Your task to perform on an android device: toggle translation in the chrome app Image 0: 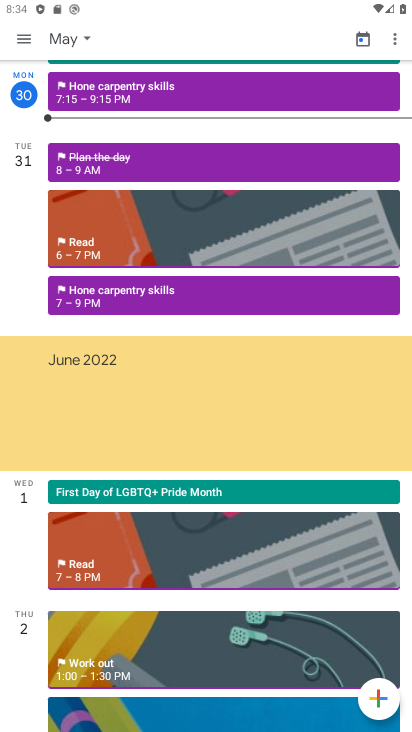
Step 0: press home button
Your task to perform on an android device: toggle translation in the chrome app Image 1: 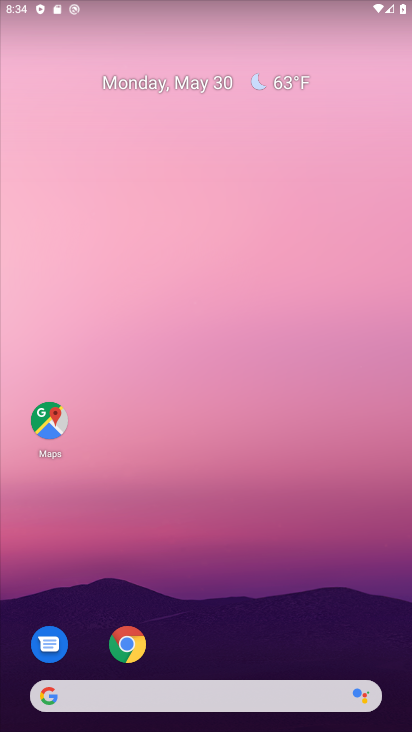
Step 1: click (128, 647)
Your task to perform on an android device: toggle translation in the chrome app Image 2: 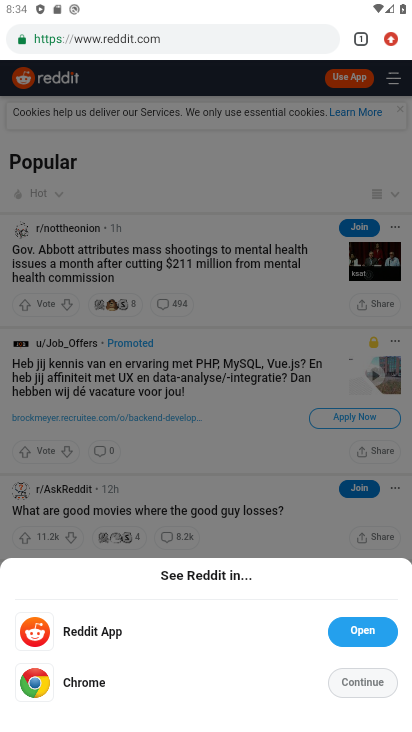
Step 2: click (390, 39)
Your task to perform on an android device: toggle translation in the chrome app Image 3: 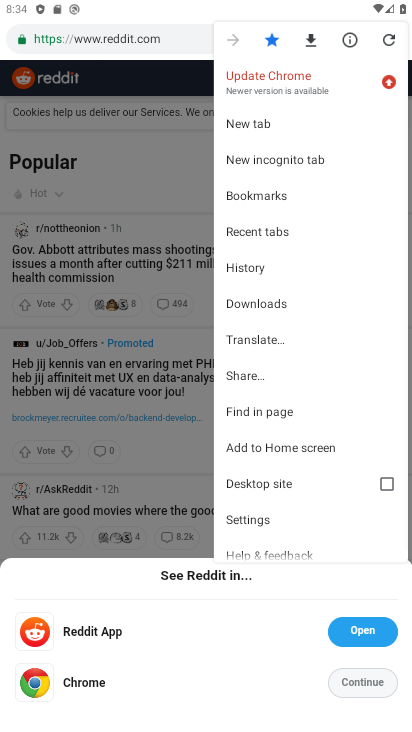
Step 3: click (275, 521)
Your task to perform on an android device: toggle translation in the chrome app Image 4: 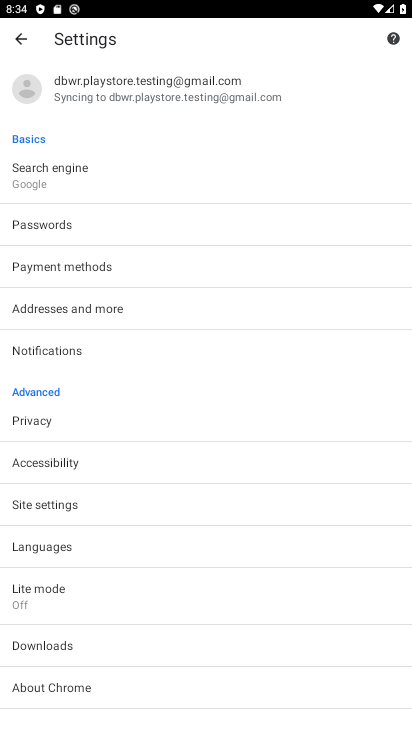
Step 4: click (59, 547)
Your task to perform on an android device: toggle translation in the chrome app Image 5: 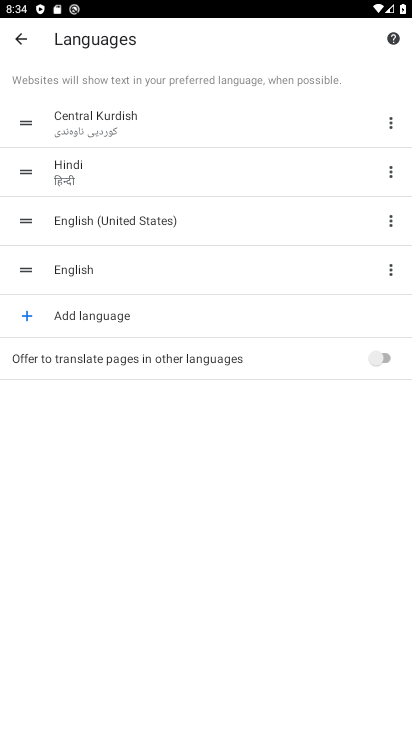
Step 5: click (378, 363)
Your task to perform on an android device: toggle translation in the chrome app Image 6: 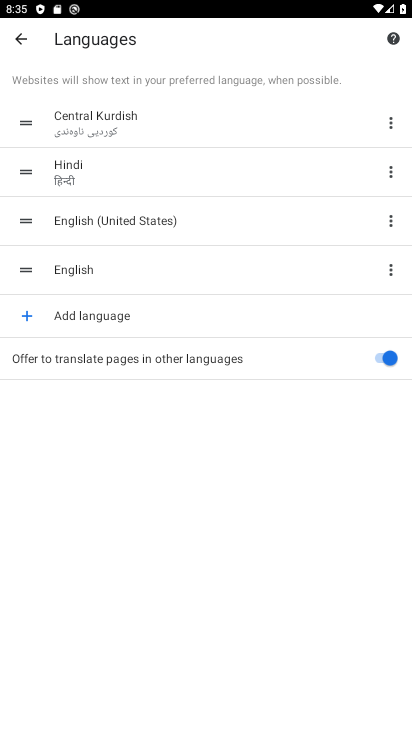
Step 6: task complete